Your task to perform on an android device: Go to Android settings Image 0: 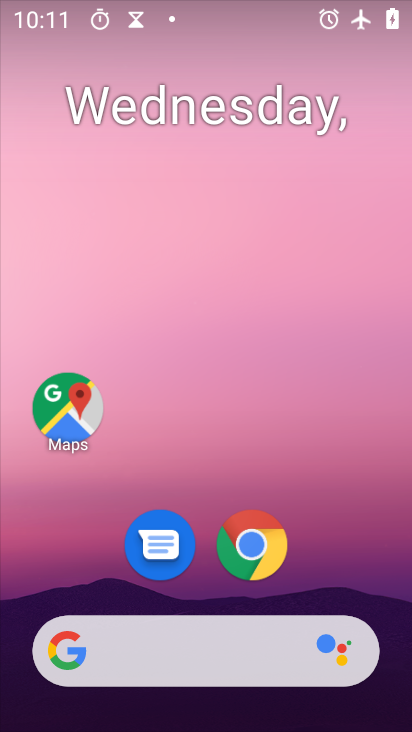
Step 0: press home button
Your task to perform on an android device: Go to Android settings Image 1: 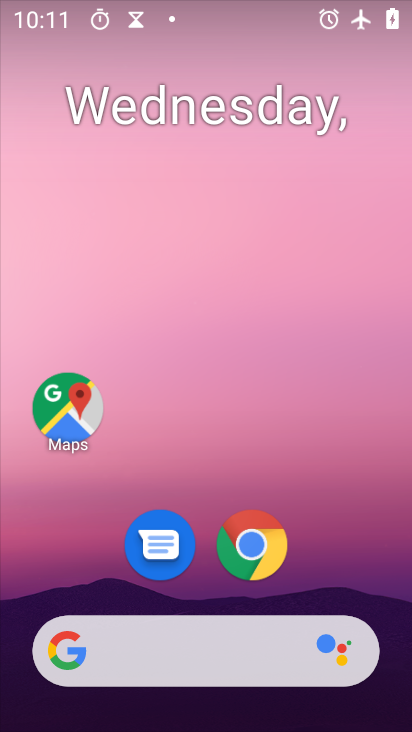
Step 1: drag from (141, 666) to (305, 129)
Your task to perform on an android device: Go to Android settings Image 2: 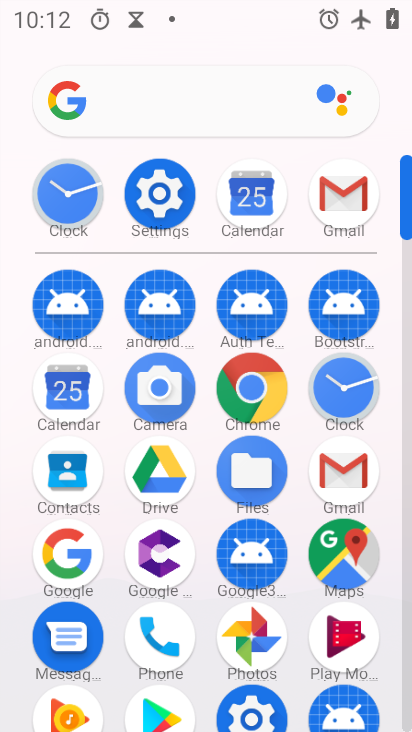
Step 2: click (163, 195)
Your task to perform on an android device: Go to Android settings Image 3: 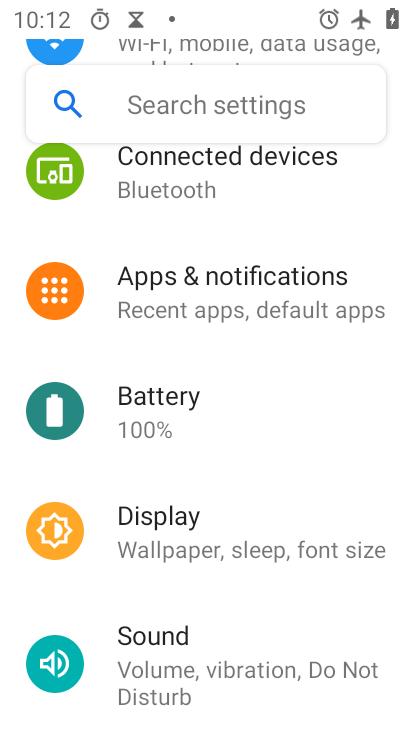
Step 3: task complete